Your task to perform on an android device: Open privacy settings Image 0: 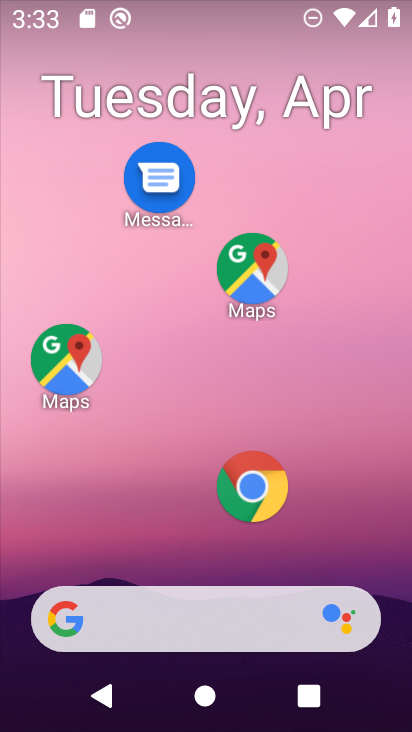
Step 0: click (229, 451)
Your task to perform on an android device: Open privacy settings Image 1: 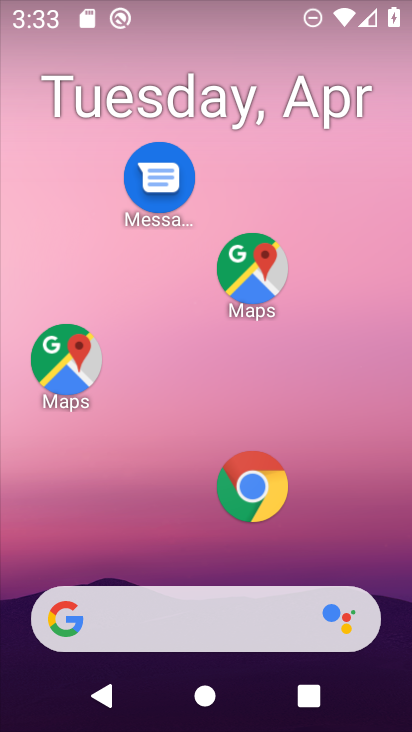
Step 1: click (228, 595)
Your task to perform on an android device: Open privacy settings Image 2: 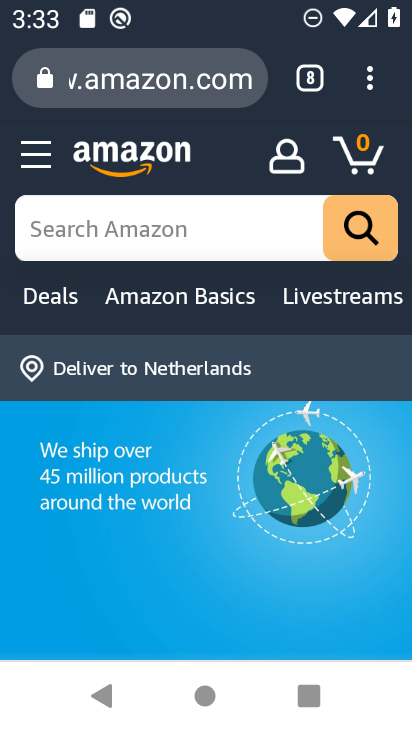
Step 2: press home button
Your task to perform on an android device: Open privacy settings Image 3: 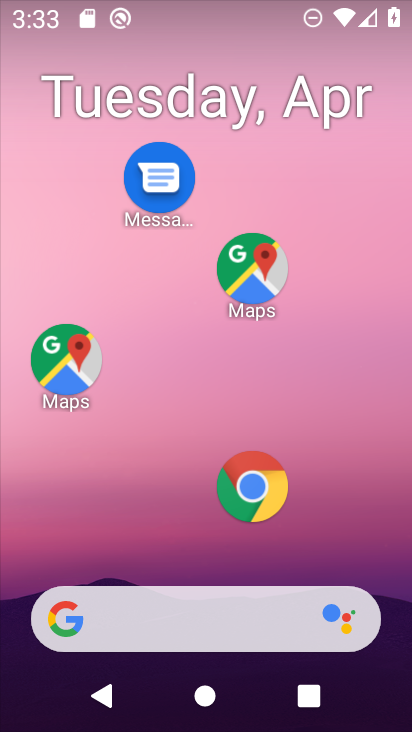
Step 3: click (226, 502)
Your task to perform on an android device: Open privacy settings Image 4: 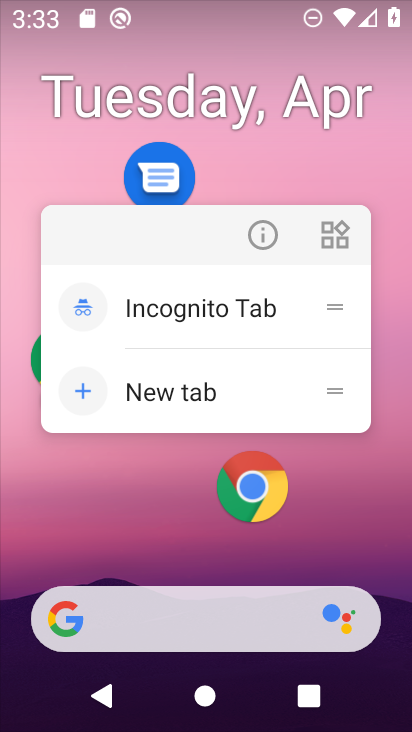
Step 4: drag from (332, 549) to (308, 124)
Your task to perform on an android device: Open privacy settings Image 5: 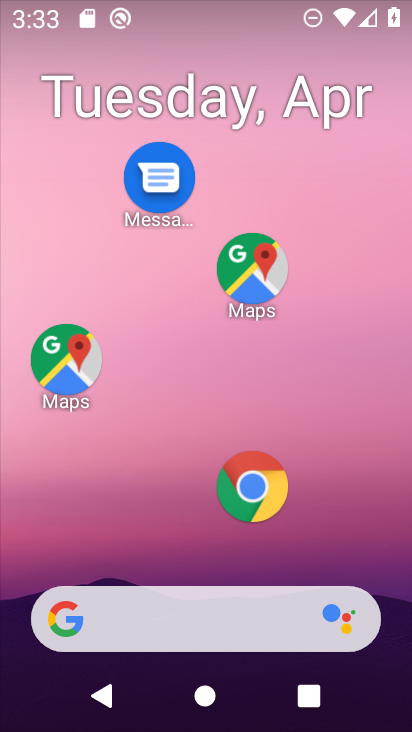
Step 5: drag from (173, 453) to (218, 138)
Your task to perform on an android device: Open privacy settings Image 6: 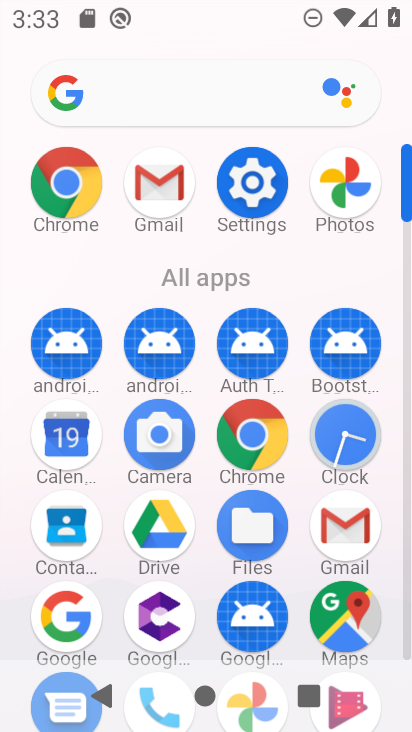
Step 6: click (256, 221)
Your task to perform on an android device: Open privacy settings Image 7: 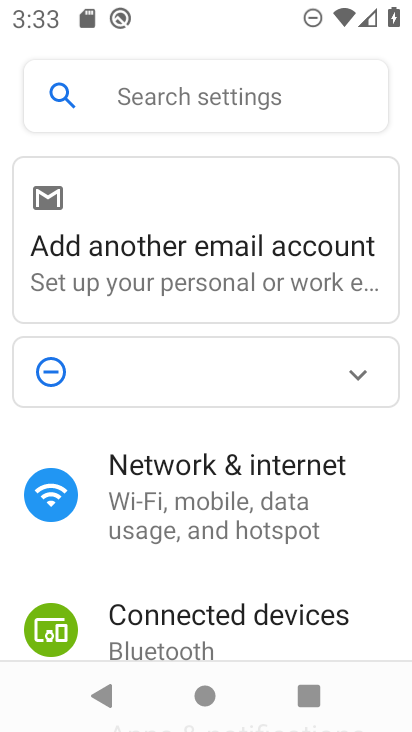
Step 7: drag from (238, 531) to (282, 256)
Your task to perform on an android device: Open privacy settings Image 8: 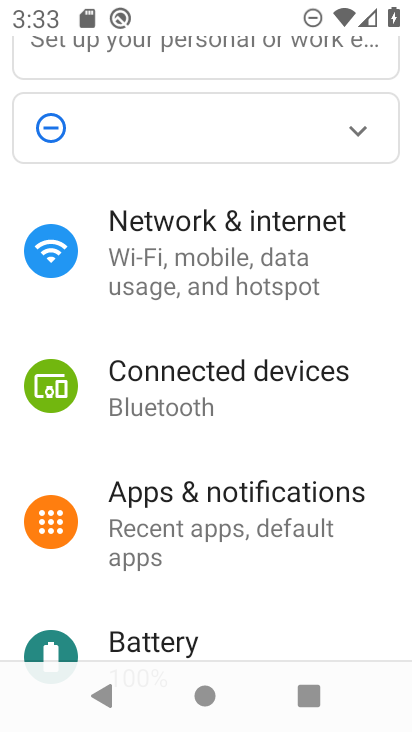
Step 8: drag from (240, 543) to (285, 208)
Your task to perform on an android device: Open privacy settings Image 9: 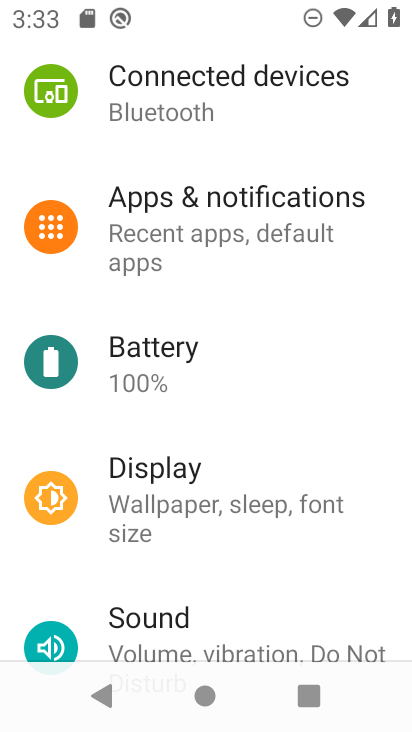
Step 9: drag from (244, 440) to (277, 99)
Your task to perform on an android device: Open privacy settings Image 10: 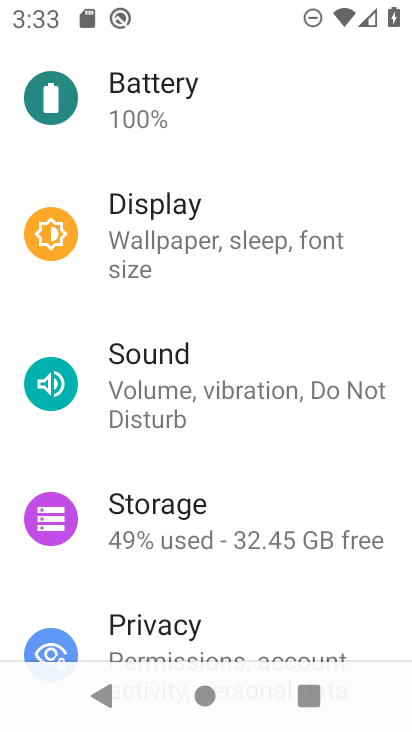
Step 10: click (200, 633)
Your task to perform on an android device: Open privacy settings Image 11: 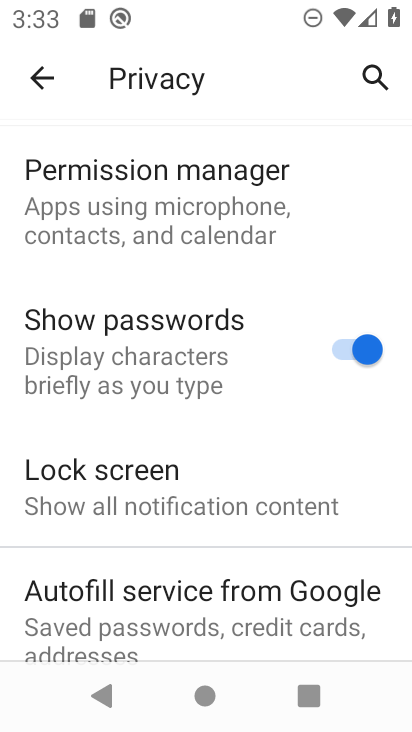
Step 11: task complete